Your task to perform on an android device: Open Google Maps and go to "Timeline" Image 0: 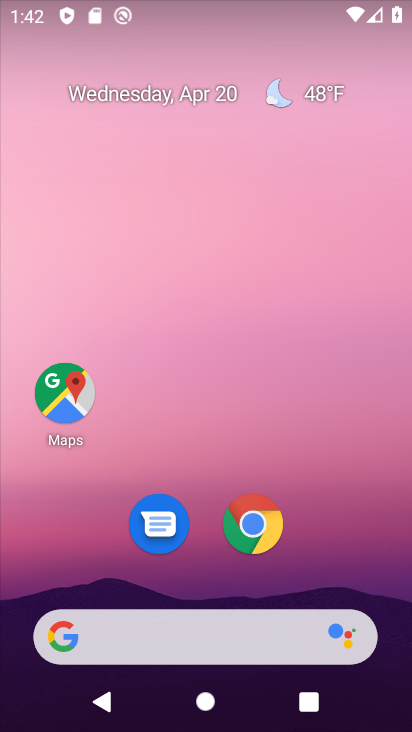
Step 0: click (61, 390)
Your task to perform on an android device: Open Google Maps and go to "Timeline" Image 1: 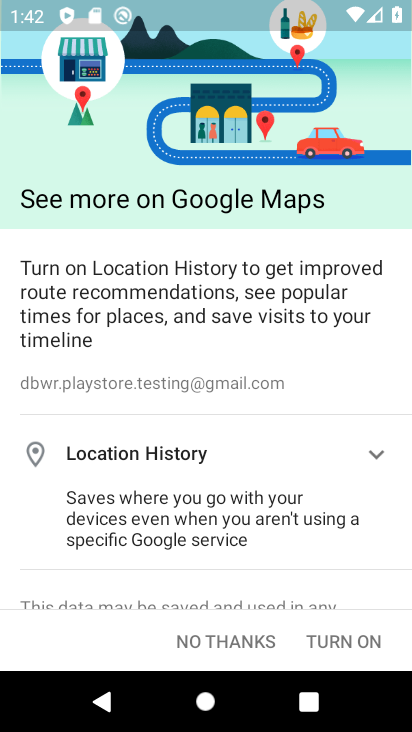
Step 1: click (223, 632)
Your task to perform on an android device: Open Google Maps and go to "Timeline" Image 2: 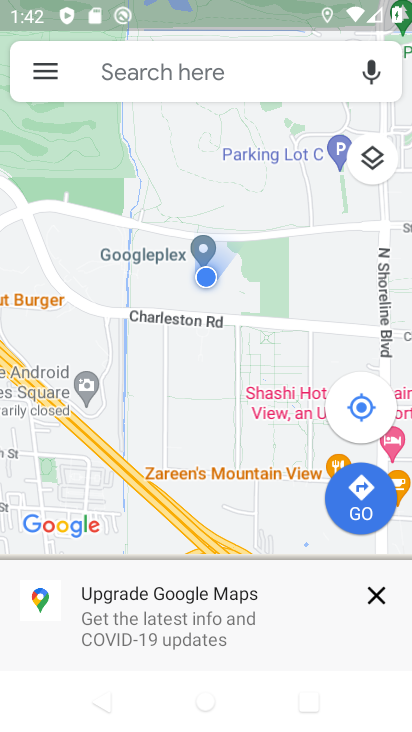
Step 2: click (46, 73)
Your task to perform on an android device: Open Google Maps and go to "Timeline" Image 3: 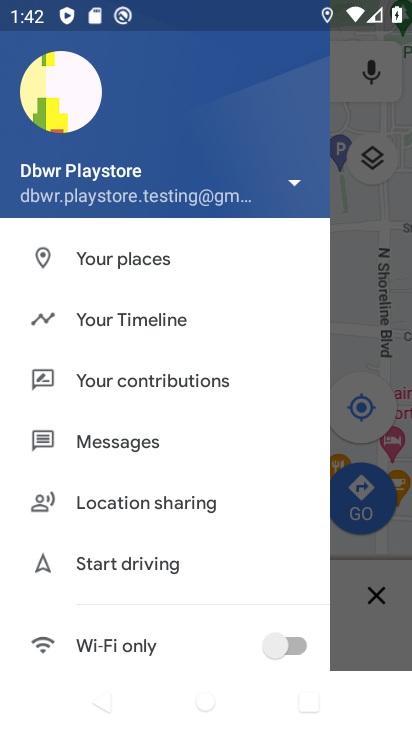
Step 3: click (130, 311)
Your task to perform on an android device: Open Google Maps and go to "Timeline" Image 4: 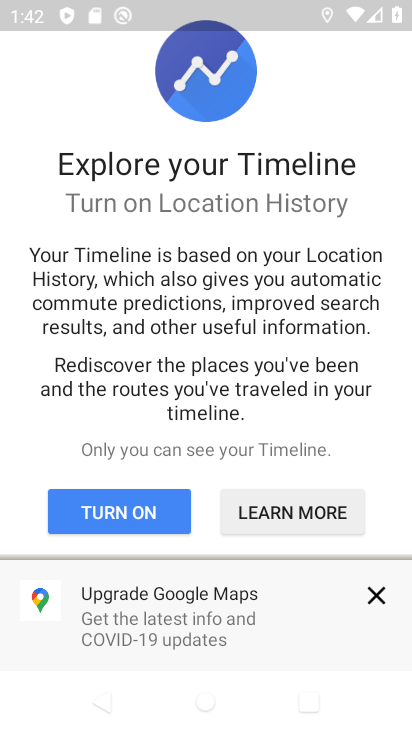
Step 4: click (160, 508)
Your task to perform on an android device: Open Google Maps and go to "Timeline" Image 5: 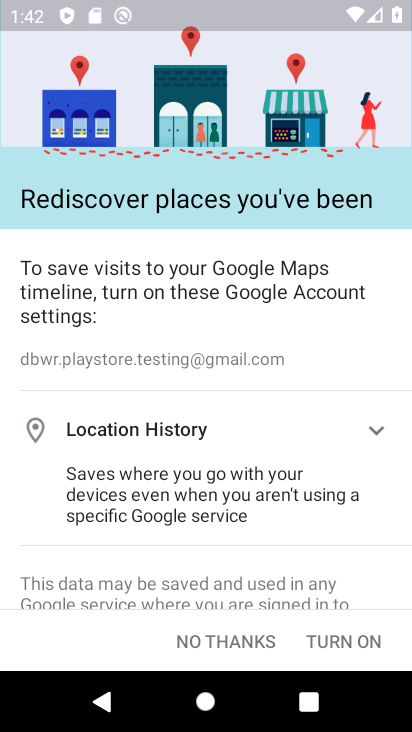
Step 5: click (325, 630)
Your task to perform on an android device: Open Google Maps and go to "Timeline" Image 6: 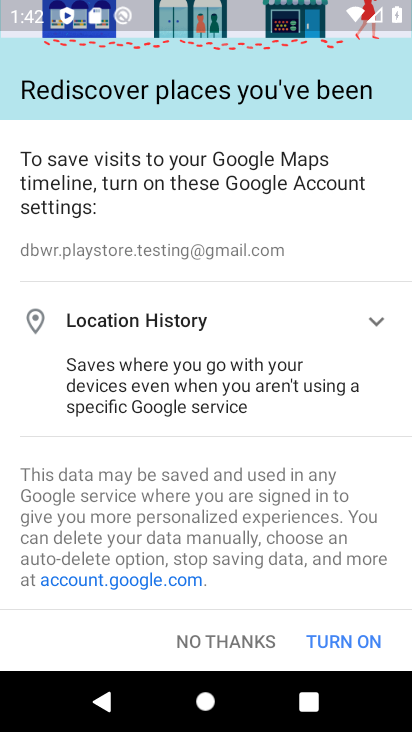
Step 6: click (325, 630)
Your task to perform on an android device: Open Google Maps and go to "Timeline" Image 7: 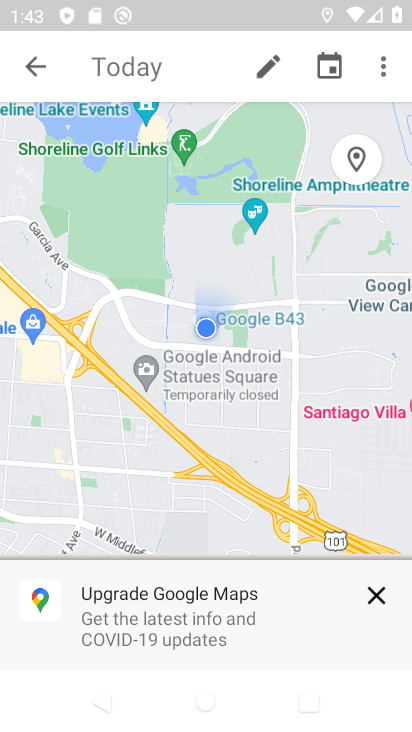
Step 7: click (33, 61)
Your task to perform on an android device: Open Google Maps and go to "Timeline" Image 8: 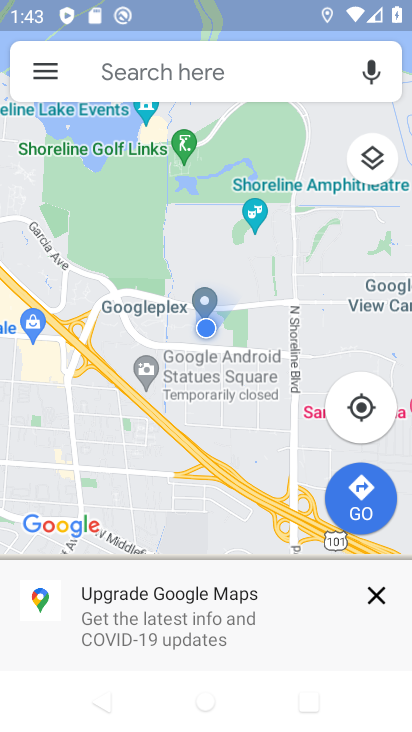
Step 8: click (33, 61)
Your task to perform on an android device: Open Google Maps and go to "Timeline" Image 9: 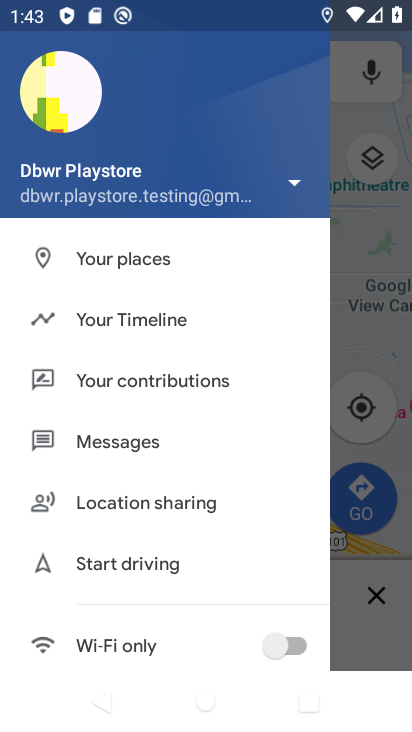
Step 9: click (156, 309)
Your task to perform on an android device: Open Google Maps and go to "Timeline" Image 10: 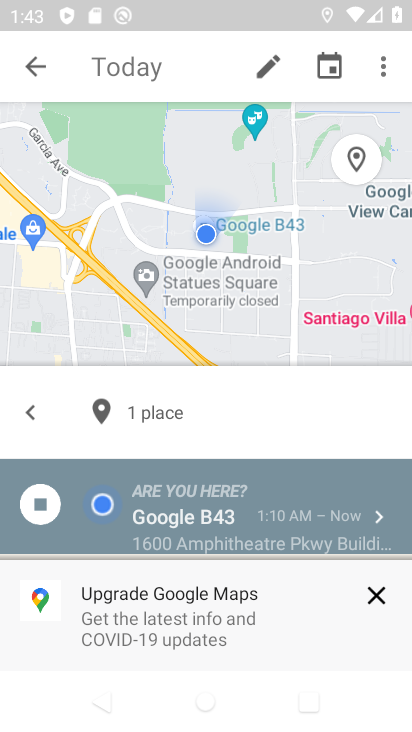
Step 10: task complete